Your task to perform on an android device: turn off notifications settings in the gmail app Image 0: 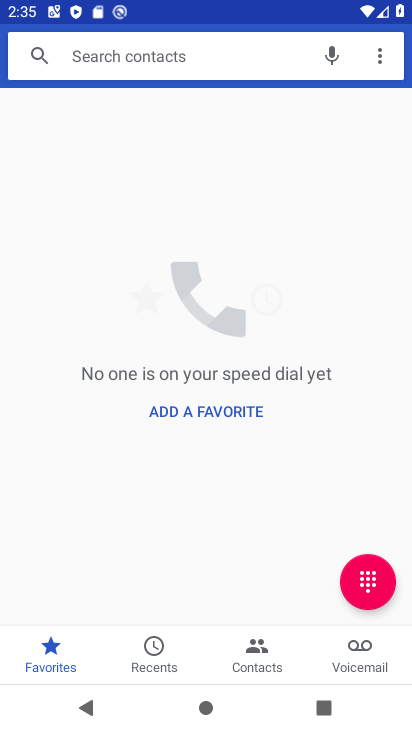
Step 0: press home button
Your task to perform on an android device: turn off notifications settings in the gmail app Image 1: 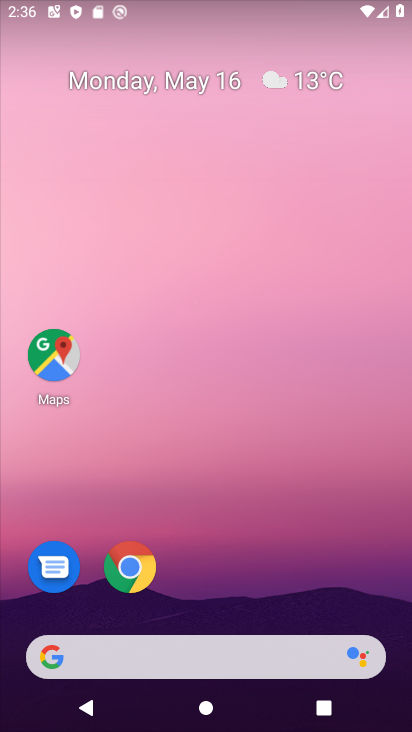
Step 1: drag from (256, 403) to (342, 26)
Your task to perform on an android device: turn off notifications settings in the gmail app Image 2: 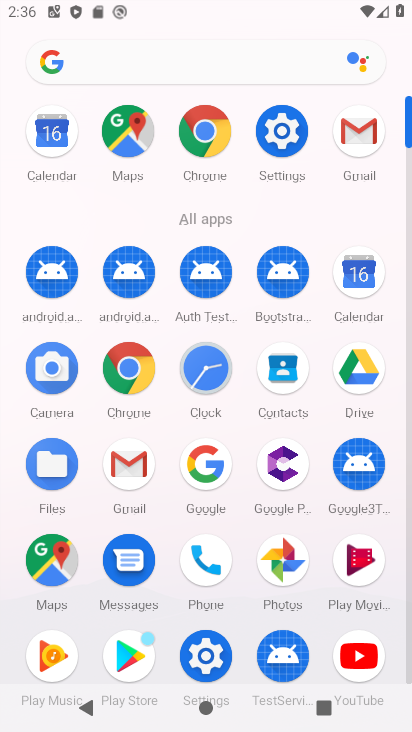
Step 2: click (374, 140)
Your task to perform on an android device: turn off notifications settings in the gmail app Image 3: 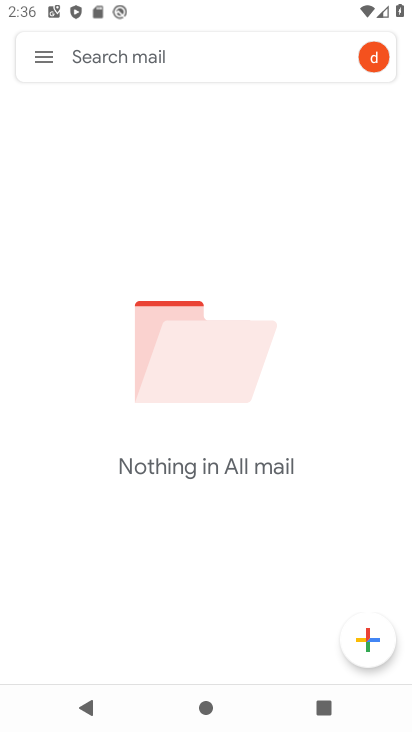
Step 3: click (47, 62)
Your task to perform on an android device: turn off notifications settings in the gmail app Image 4: 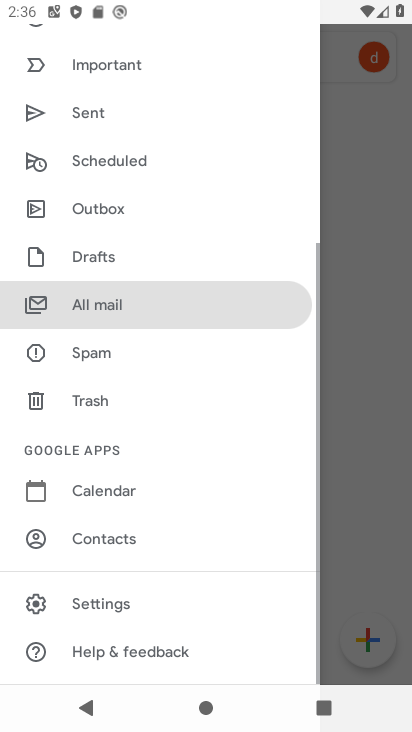
Step 4: drag from (138, 616) to (270, 182)
Your task to perform on an android device: turn off notifications settings in the gmail app Image 5: 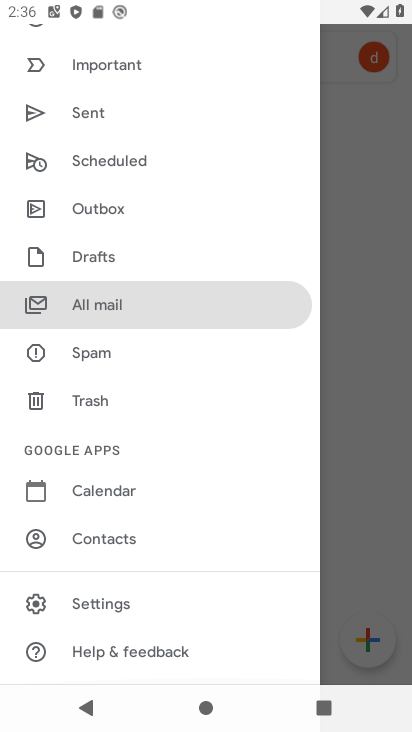
Step 5: click (139, 595)
Your task to perform on an android device: turn off notifications settings in the gmail app Image 6: 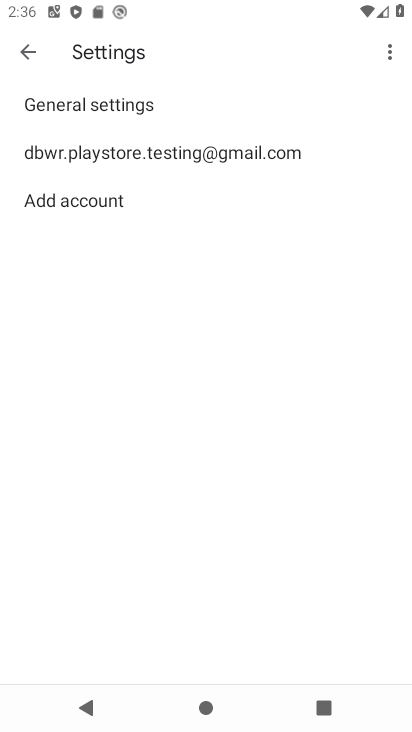
Step 6: click (210, 160)
Your task to perform on an android device: turn off notifications settings in the gmail app Image 7: 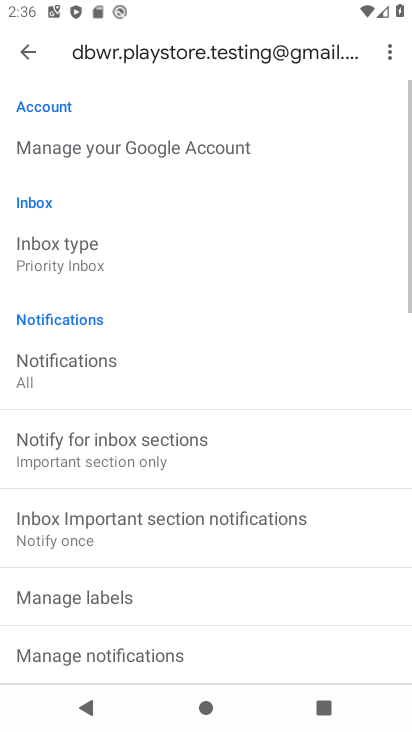
Step 7: drag from (187, 511) to (291, 161)
Your task to perform on an android device: turn off notifications settings in the gmail app Image 8: 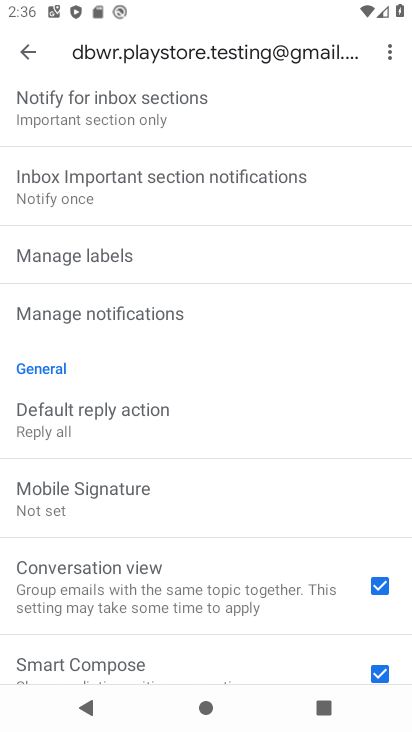
Step 8: drag from (150, 261) to (148, 334)
Your task to perform on an android device: turn off notifications settings in the gmail app Image 9: 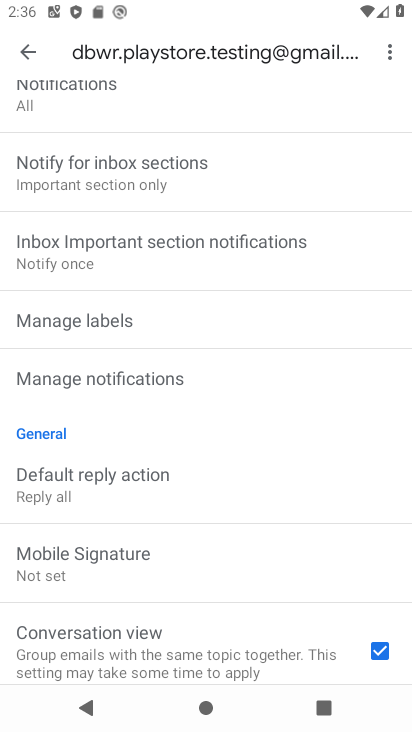
Step 9: click (122, 386)
Your task to perform on an android device: turn off notifications settings in the gmail app Image 10: 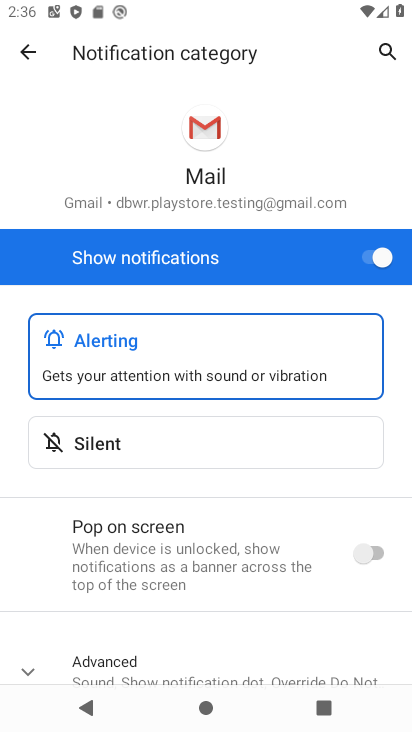
Step 10: click (387, 241)
Your task to perform on an android device: turn off notifications settings in the gmail app Image 11: 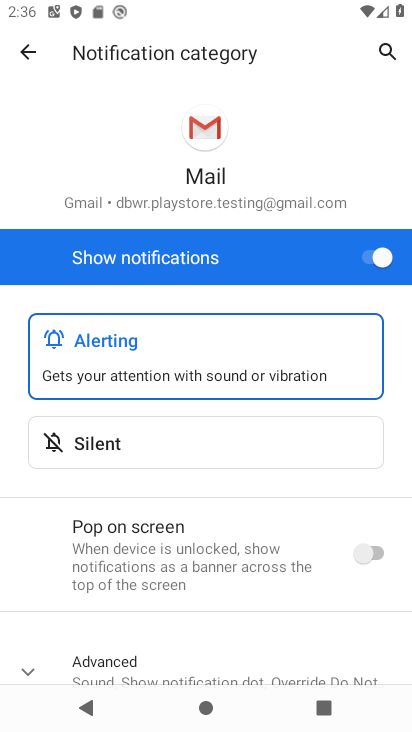
Step 11: click (382, 253)
Your task to perform on an android device: turn off notifications settings in the gmail app Image 12: 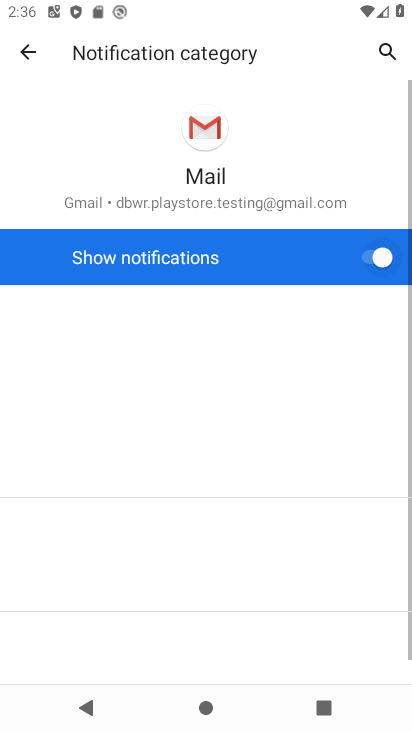
Step 12: click (378, 258)
Your task to perform on an android device: turn off notifications settings in the gmail app Image 13: 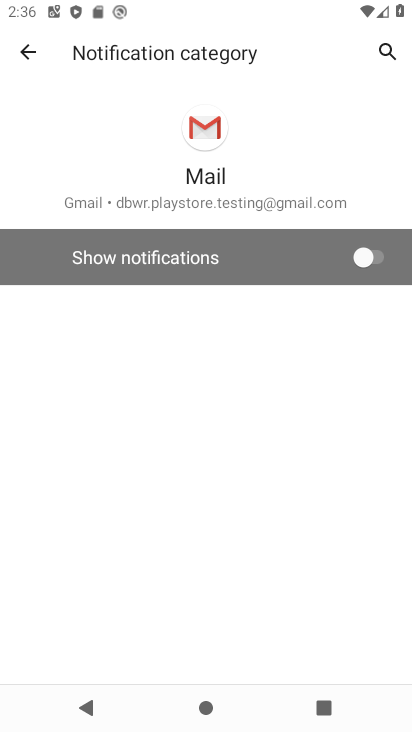
Step 13: click (380, 258)
Your task to perform on an android device: turn off notifications settings in the gmail app Image 14: 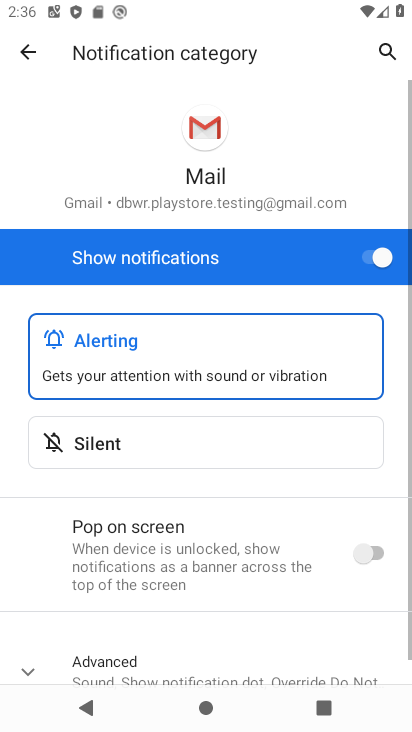
Step 14: task complete